Your task to perform on an android device: turn off airplane mode Image 0: 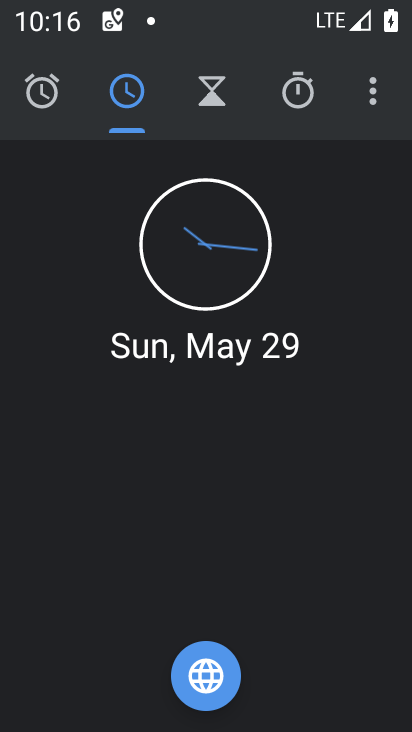
Step 0: press home button
Your task to perform on an android device: turn off airplane mode Image 1: 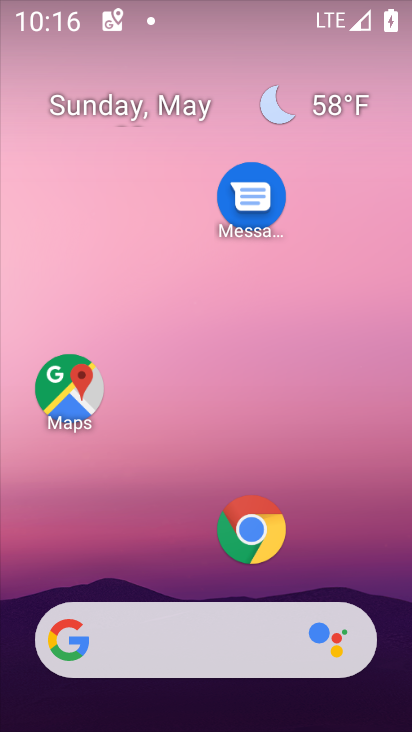
Step 1: drag from (168, 550) to (192, 124)
Your task to perform on an android device: turn off airplane mode Image 2: 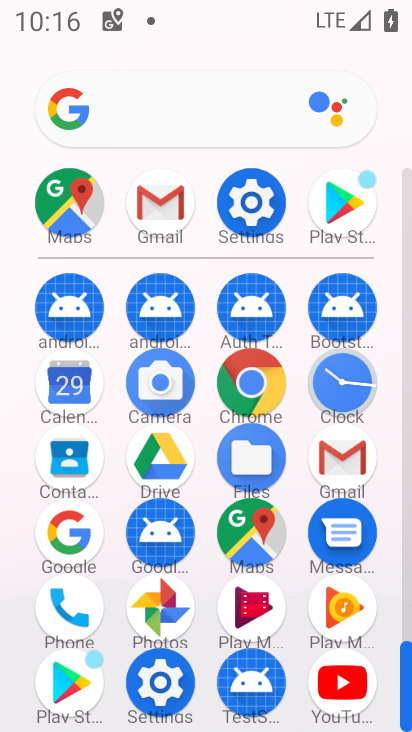
Step 2: click (265, 207)
Your task to perform on an android device: turn off airplane mode Image 3: 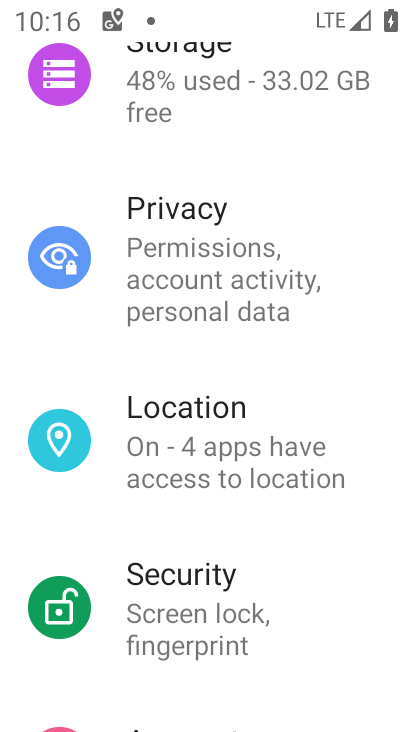
Step 3: drag from (230, 359) to (222, 550)
Your task to perform on an android device: turn off airplane mode Image 4: 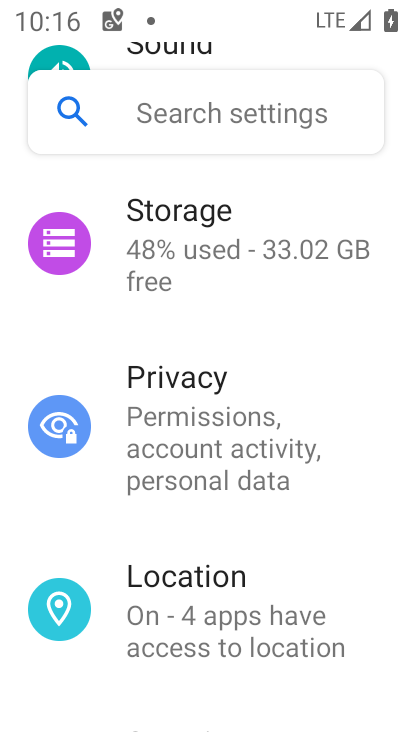
Step 4: drag from (239, 226) to (225, 389)
Your task to perform on an android device: turn off airplane mode Image 5: 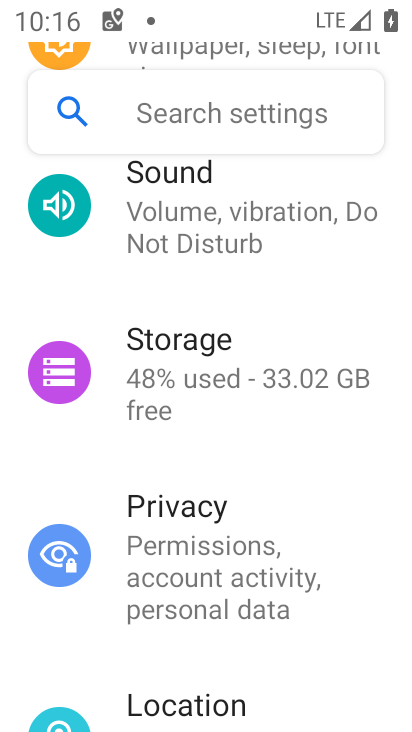
Step 5: drag from (222, 244) to (235, 371)
Your task to perform on an android device: turn off airplane mode Image 6: 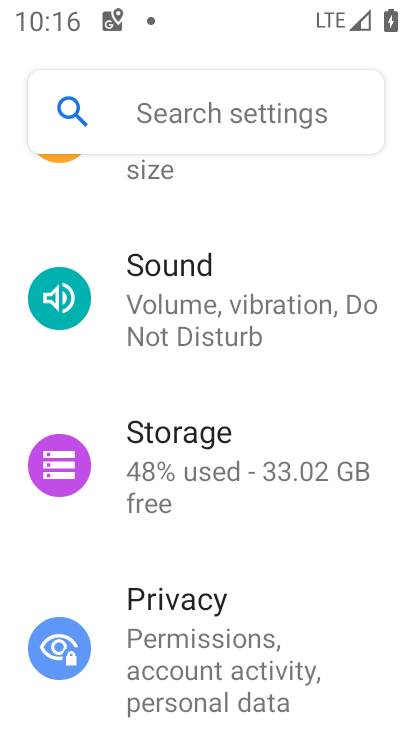
Step 6: drag from (227, 230) to (239, 527)
Your task to perform on an android device: turn off airplane mode Image 7: 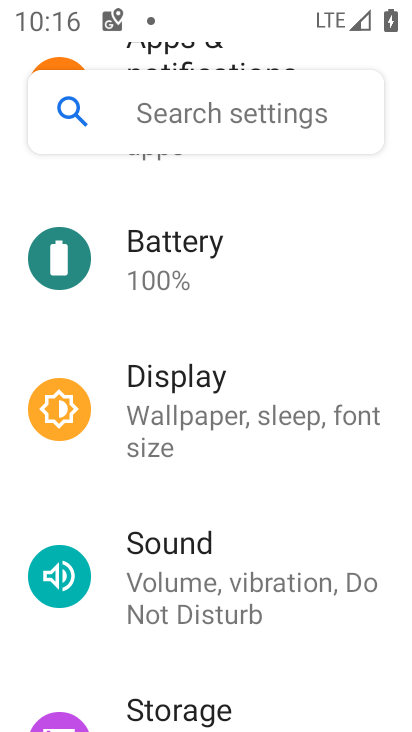
Step 7: drag from (249, 299) to (225, 412)
Your task to perform on an android device: turn off airplane mode Image 8: 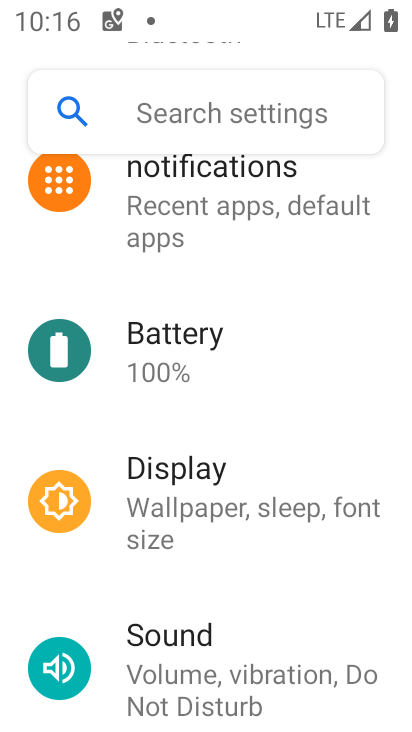
Step 8: drag from (217, 270) to (222, 484)
Your task to perform on an android device: turn off airplane mode Image 9: 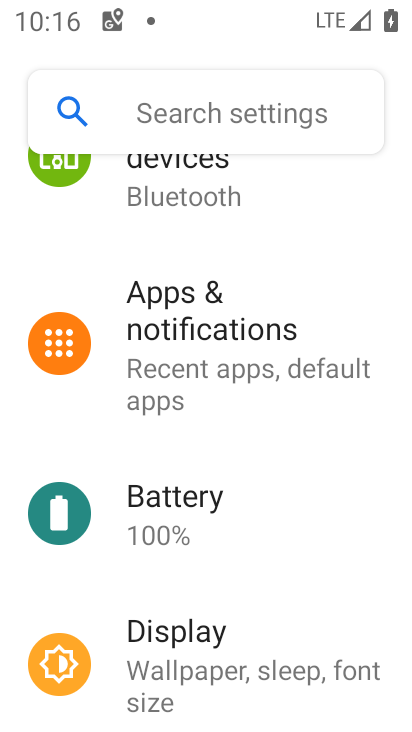
Step 9: drag from (260, 220) to (260, 528)
Your task to perform on an android device: turn off airplane mode Image 10: 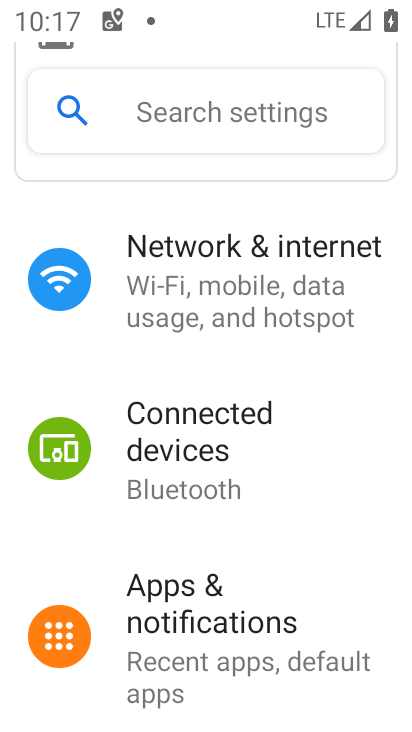
Step 10: click (269, 309)
Your task to perform on an android device: turn off airplane mode Image 11: 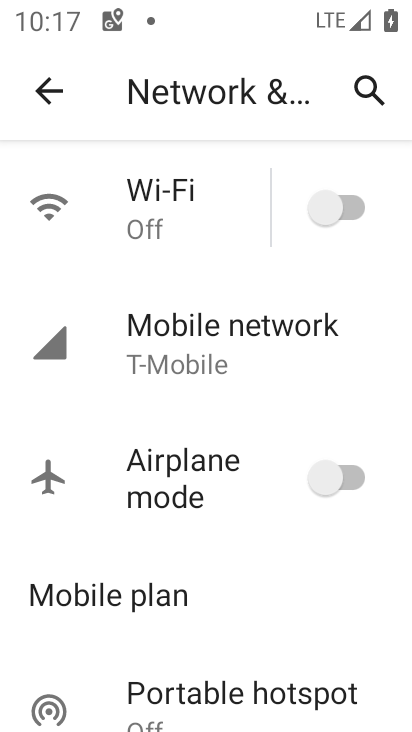
Step 11: task complete